Your task to perform on an android device: Is it going to rain today? Image 0: 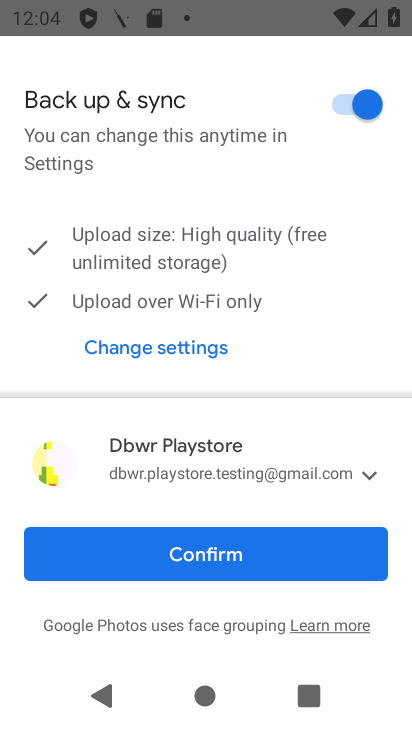
Step 0: press home button
Your task to perform on an android device: Is it going to rain today? Image 1: 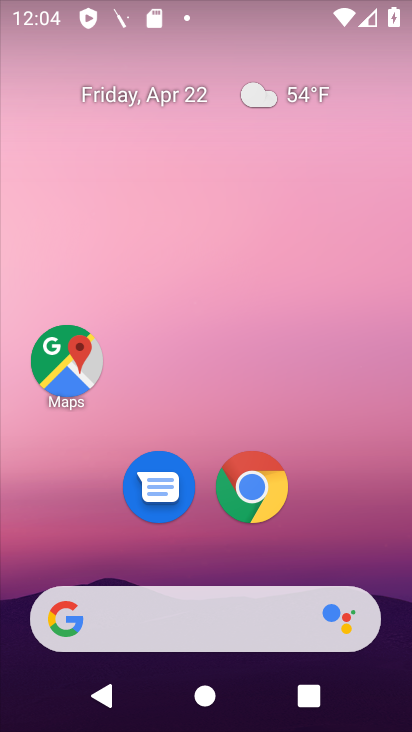
Step 1: drag from (241, 399) to (263, 75)
Your task to perform on an android device: Is it going to rain today? Image 2: 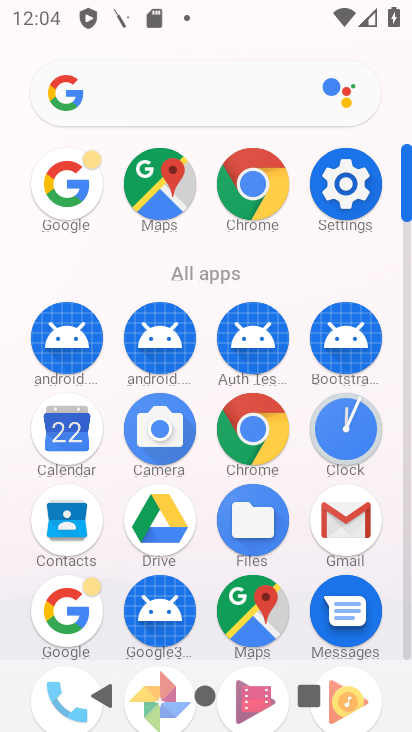
Step 2: click (66, 621)
Your task to perform on an android device: Is it going to rain today? Image 3: 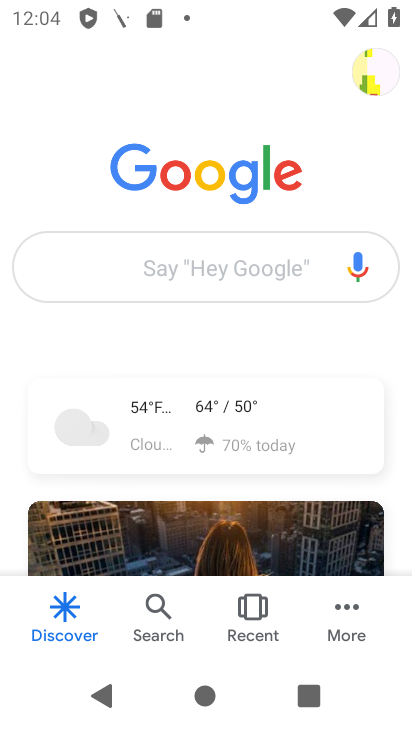
Step 3: click (179, 419)
Your task to perform on an android device: Is it going to rain today? Image 4: 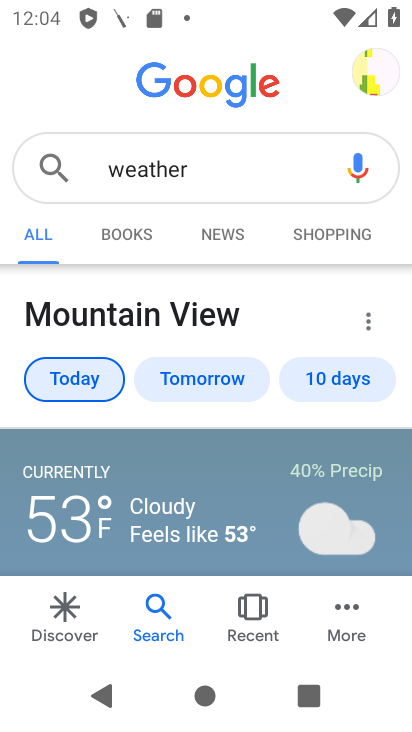
Step 4: task complete